Your task to perform on an android device: turn pop-ups off in chrome Image 0: 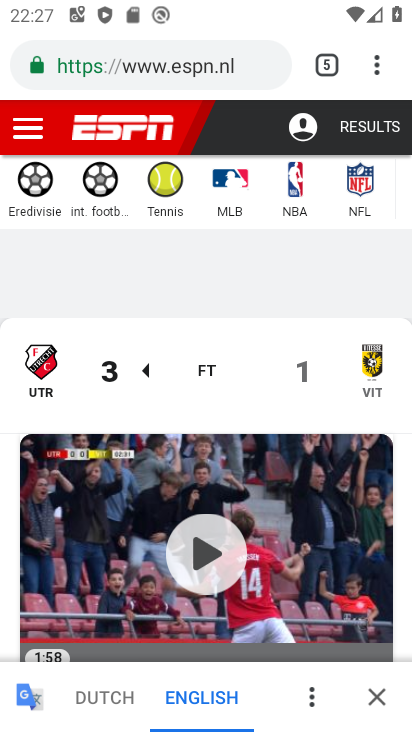
Step 0: press home button
Your task to perform on an android device: turn pop-ups off in chrome Image 1: 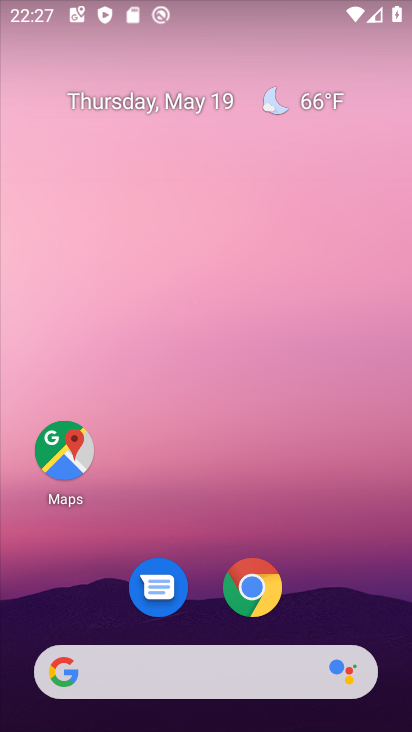
Step 1: drag from (192, 704) to (192, 249)
Your task to perform on an android device: turn pop-ups off in chrome Image 2: 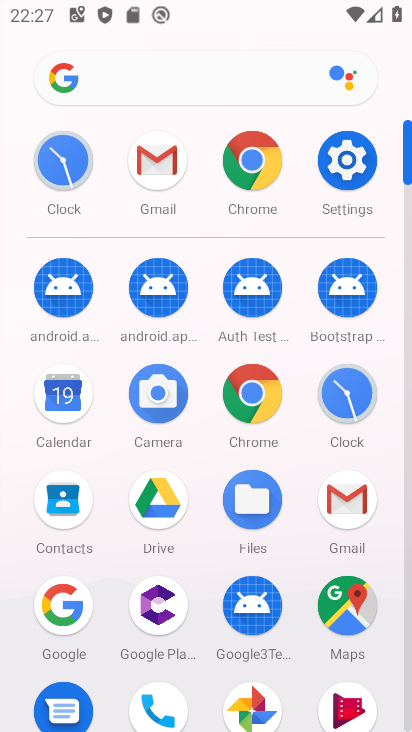
Step 2: click (236, 167)
Your task to perform on an android device: turn pop-ups off in chrome Image 3: 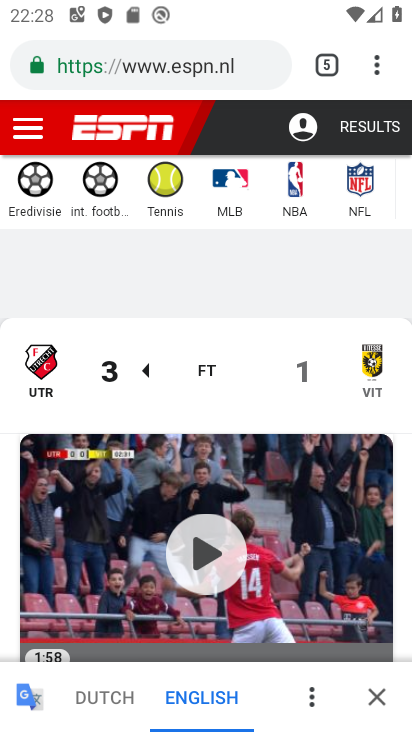
Step 3: click (381, 73)
Your task to perform on an android device: turn pop-ups off in chrome Image 4: 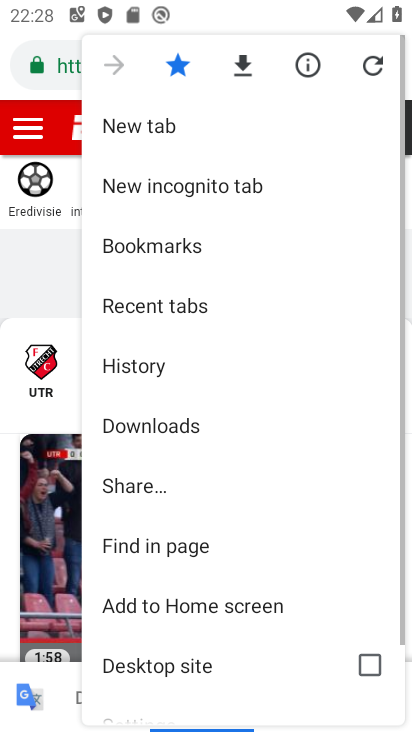
Step 4: drag from (177, 547) to (211, 328)
Your task to perform on an android device: turn pop-ups off in chrome Image 5: 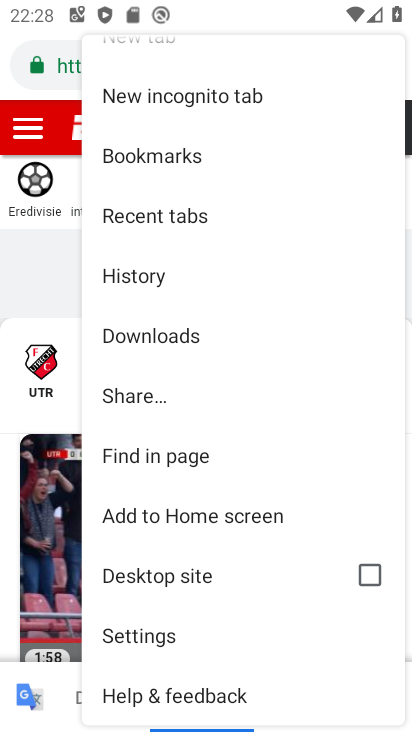
Step 5: click (189, 635)
Your task to perform on an android device: turn pop-ups off in chrome Image 6: 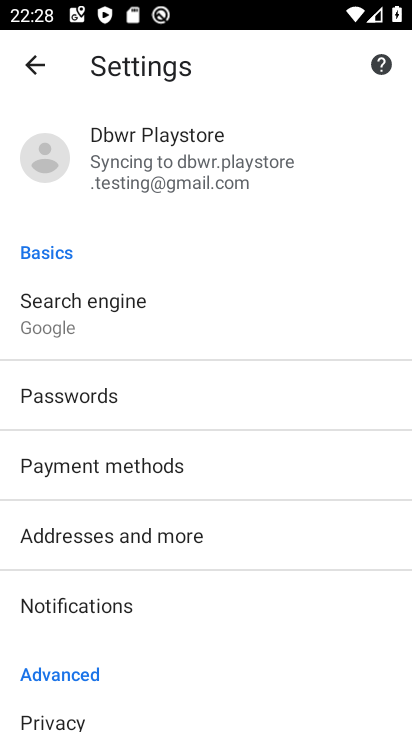
Step 6: drag from (114, 588) to (130, 300)
Your task to perform on an android device: turn pop-ups off in chrome Image 7: 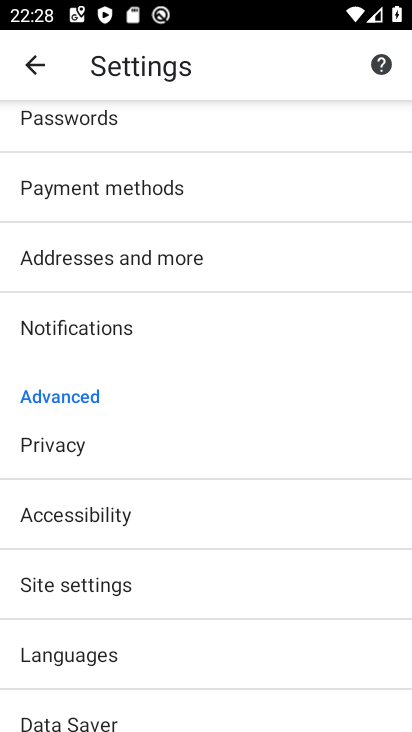
Step 7: click (145, 593)
Your task to perform on an android device: turn pop-ups off in chrome Image 8: 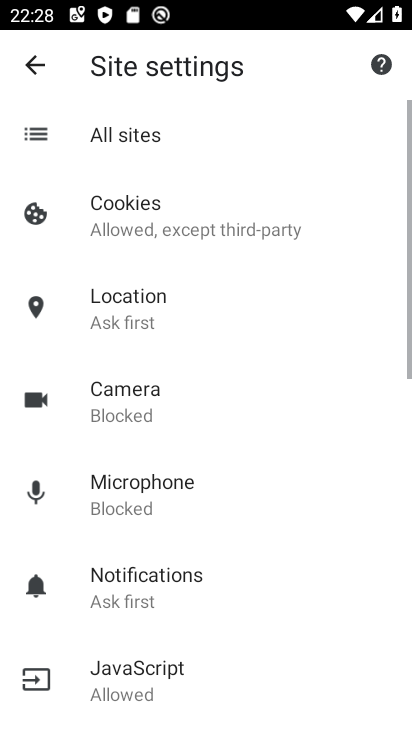
Step 8: drag from (128, 636) to (169, 473)
Your task to perform on an android device: turn pop-ups off in chrome Image 9: 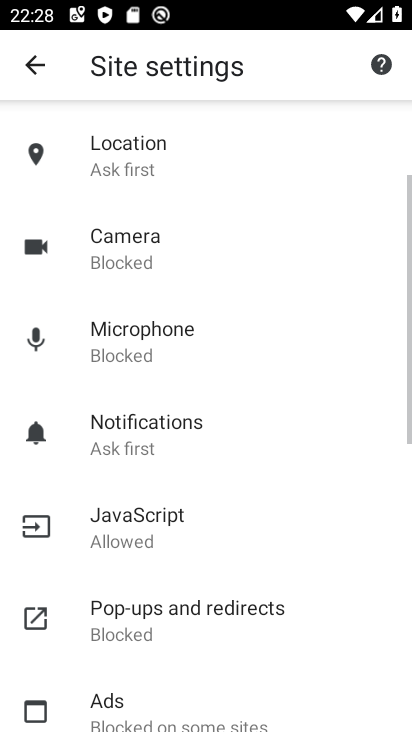
Step 9: click (168, 618)
Your task to perform on an android device: turn pop-ups off in chrome Image 10: 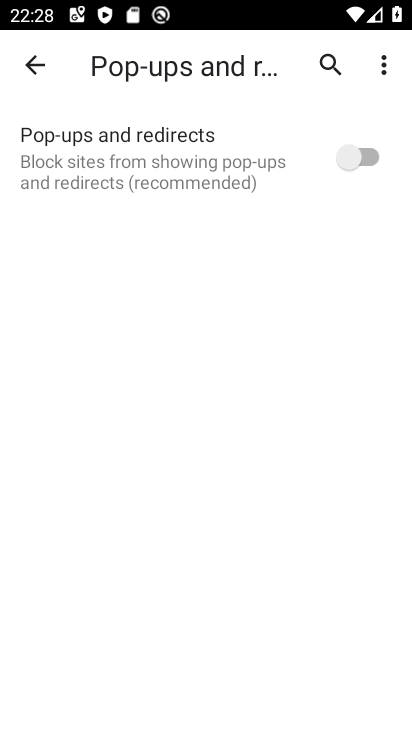
Step 10: click (357, 164)
Your task to perform on an android device: turn pop-ups off in chrome Image 11: 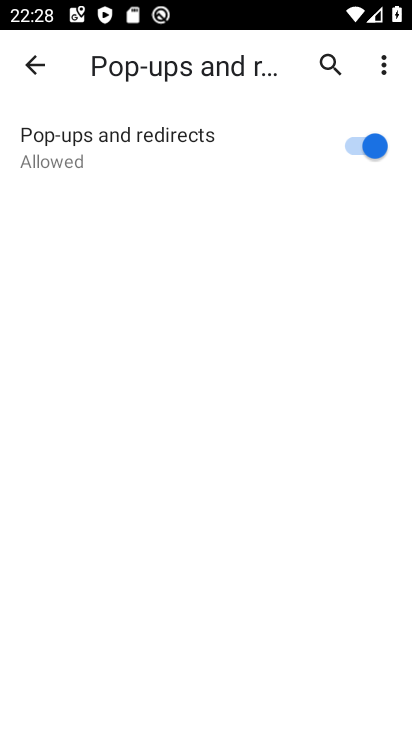
Step 11: click (356, 160)
Your task to perform on an android device: turn pop-ups off in chrome Image 12: 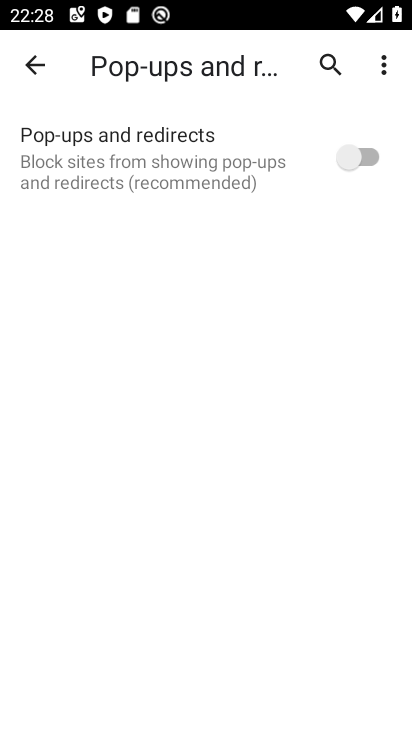
Step 12: task complete